Your task to perform on an android device: see tabs open on other devices in the chrome app Image 0: 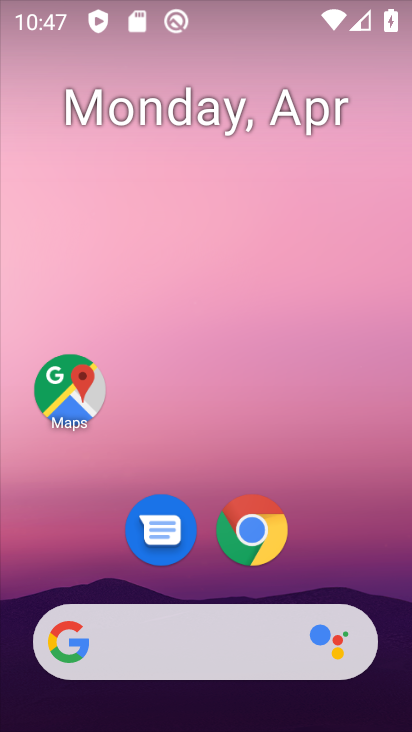
Step 0: click (272, 62)
Your task to perform on an android device: see tabs open on other devices in the chrome app Image 1: 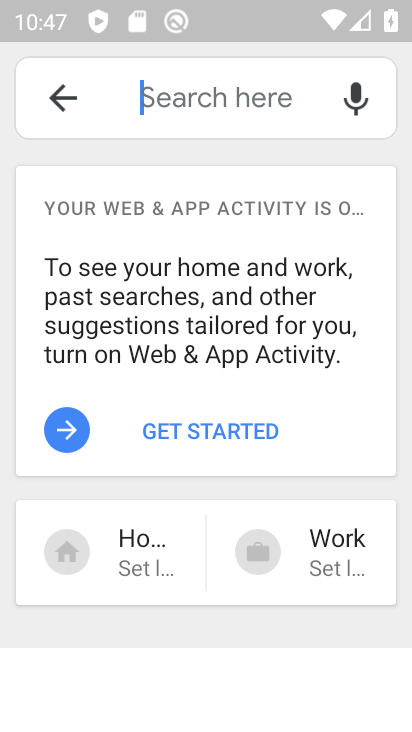
Step 1: press home button
Your task to perform on an android device: see tabs open on other devices in the chrome app Image 2: 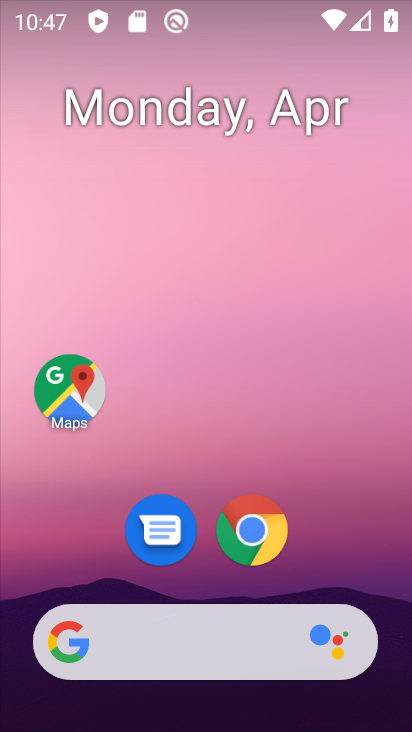
Step 2: drag from (353, 581) to (264, 83)
Your task to perform on an android device: see tabs open on other devices in the chrome app Image 3: 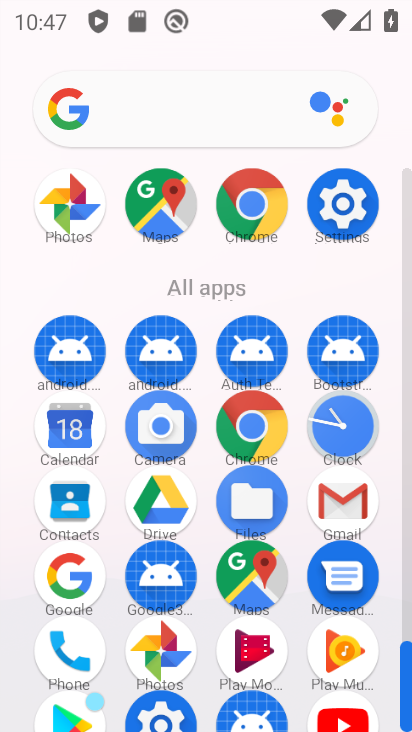
Step 3: click (255, 421)
Your task to perform on an android device: see tabs open on other devices in the chrome app Image 4: 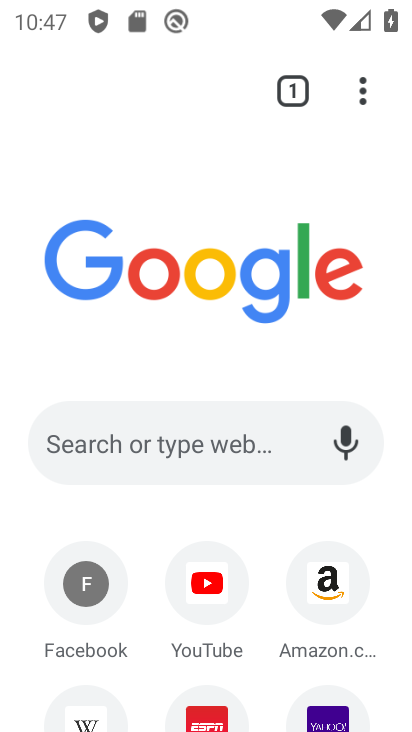
Step 4: click (359, 89)
Your task to perform on an android device: see tabs open on other devices in the chrome app Image 5: 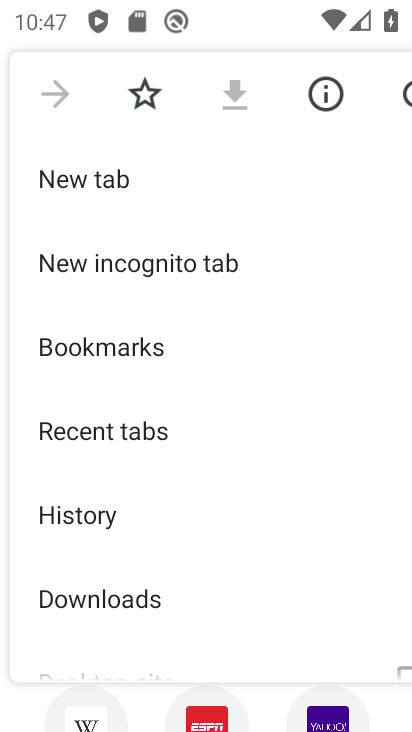
Step 5: task complete